Your task to perform on an android device: Open battery settings Image 0: 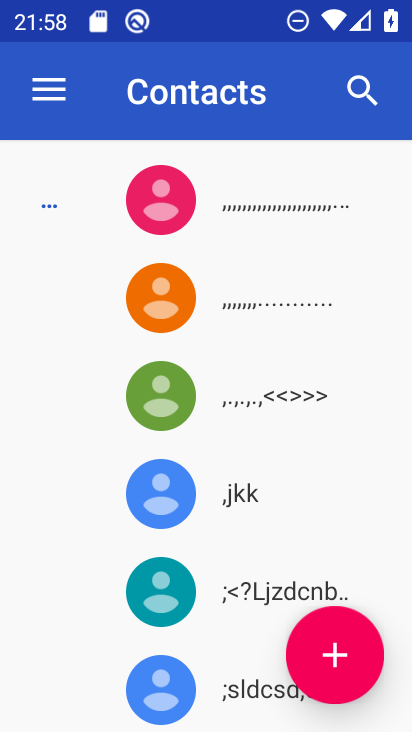
Step 0: press home button
Your task to perform on an android device: Open battery settings Image 1: 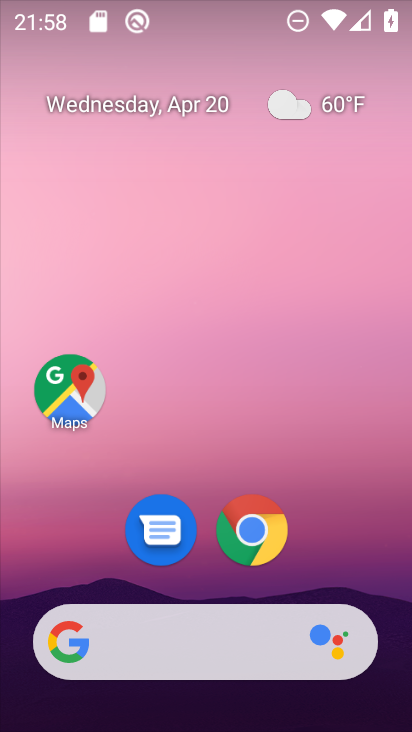
Step 1: drag from (326, 490) to (276, 119)
Your task to perform on an android device: Open battery settings Image 2: 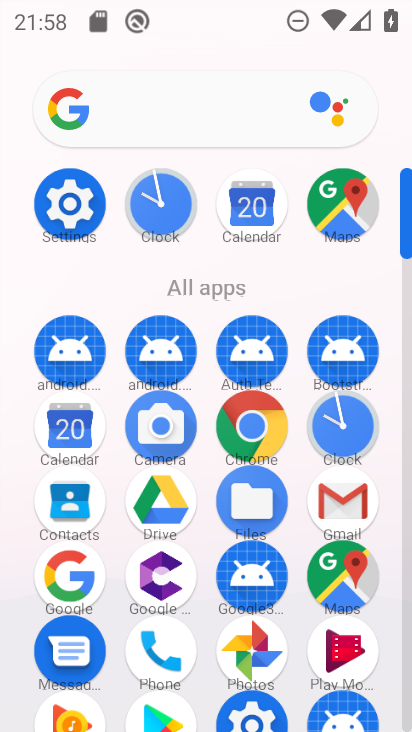
Step 2: click (66, 199)
Your task to perform on an android device: Open battery settings Image 3: 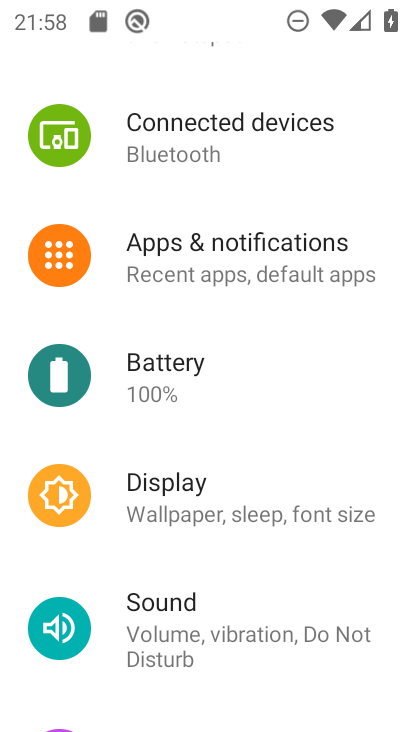
Step 3: click (199, 361)
Your task to perform on an android device: Open battery settings Image 4: 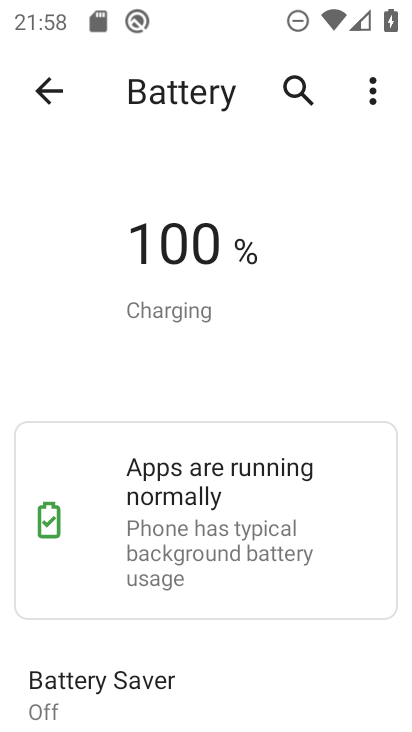
Step 4: task complete